Your task to perform on an android device: Check the weather Image 0: 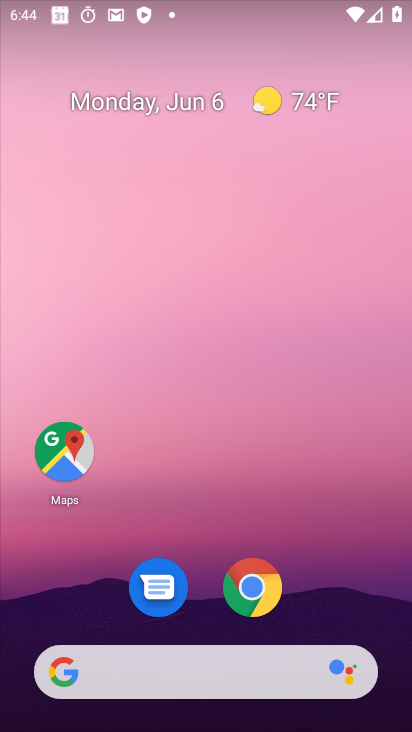
Step 0: drag from (395, 655) to (348, 90)
Your task to perform on an android device: Check the weather Image 1: 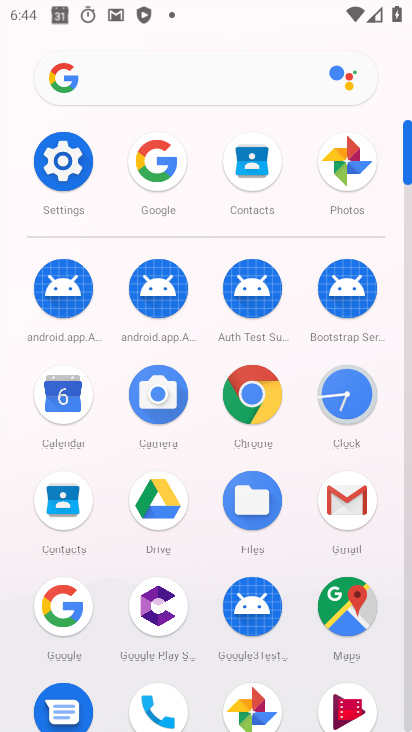
Step 1: click (35, 603)
Your task to perform on an android device: Check the weather Image 2: 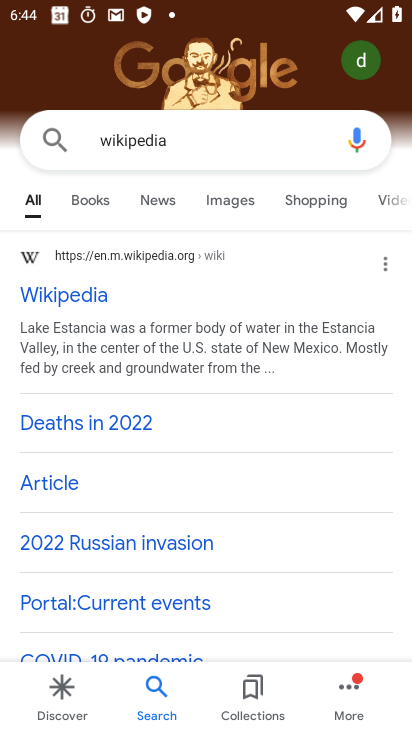
Step 2: press back button
Your task to perform on an android device: Check the weather Image 3: 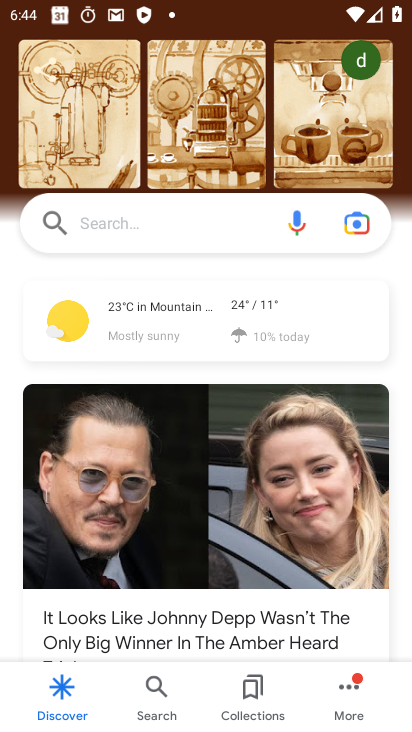
Step 3: click (119, 230)
Your task to perform on an android device: Check the weather Image 4: 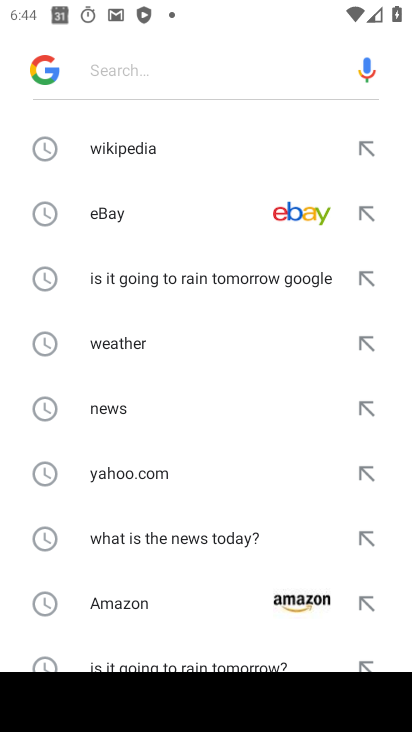
Step 4: click (112, 339)
Your task to perform on an android device: Check the weather Image 5: 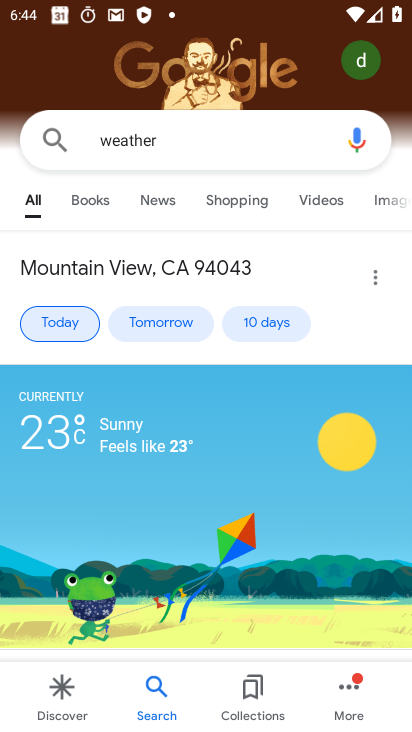
Step 5: task complete